Your task to perform on an android device: turn pop-ups off in chrome Image 0: 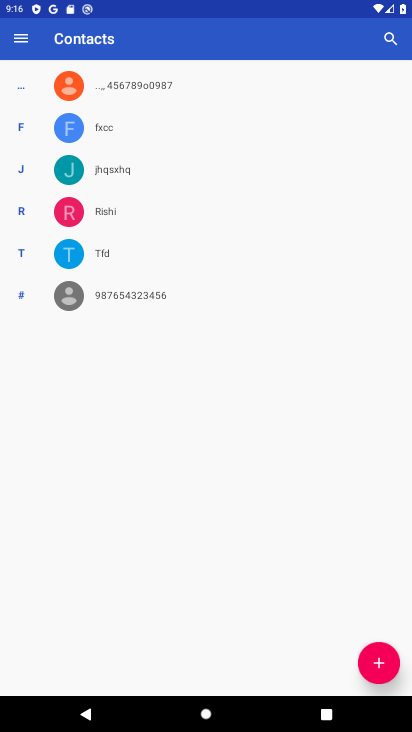
Step 0: press home button
Your task to perform on an android device: turn pop-ups off in chrome Image 1: 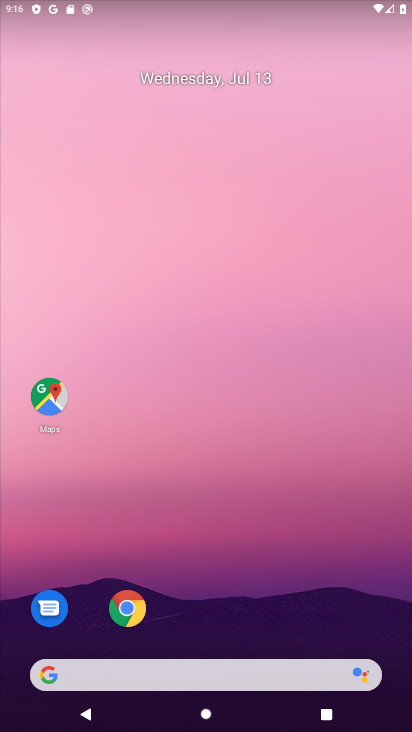
Step 1: drag from (245, 654) to (357, 113)
Your task to perform on an android device: turn pop-ups off in chrome Image 2: 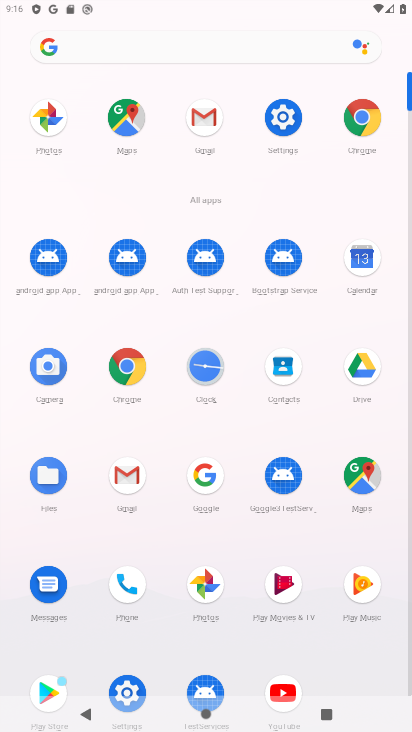
Step 2: click (135, 376)
Your task to perform on an android device: turn pop-ups off in chrome Image 3: 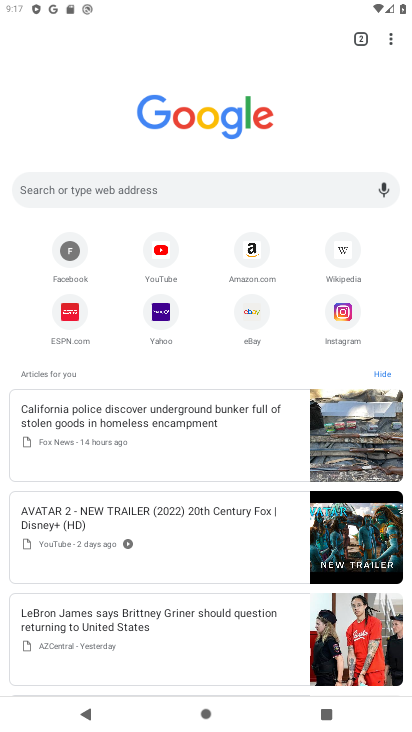
Step 3: drag from (386, 33) to (274, 335)
Your task to perform on an android device: turn pop-ups off in chrome Image 4: 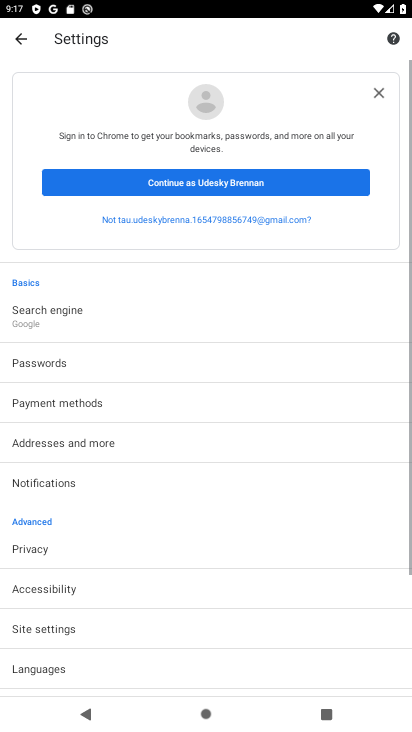
Step 4: drag from (160, 574) to (190, 231)
Your task to perform on an android device: turn pop-ups off in chrome Image 5: 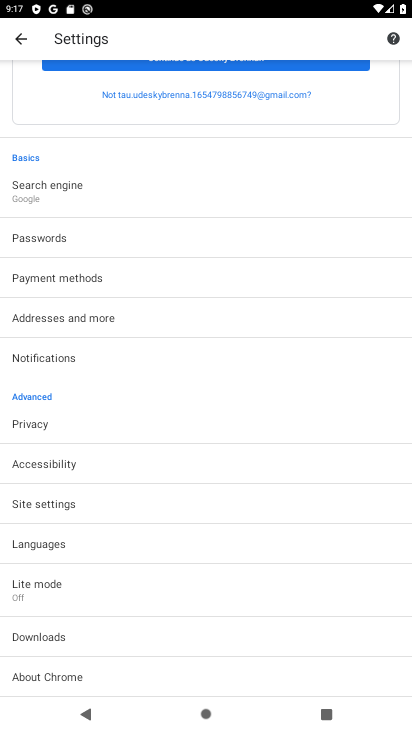
Step 5: click (102, 506)
Your task to perform on an android device: turn pop-ups off in chrome Image 6: 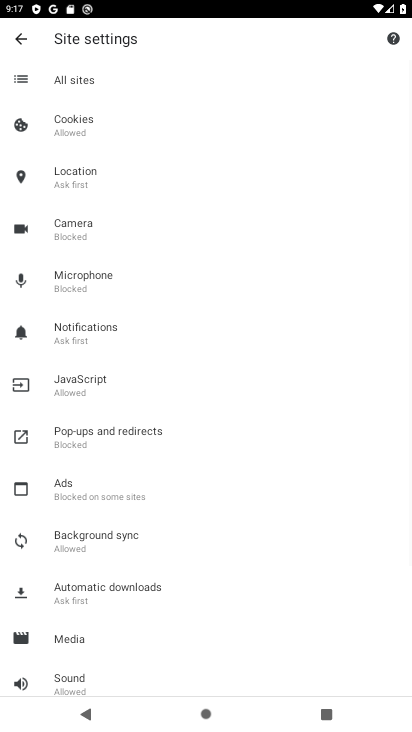
Step 6: click (123, 444)
Your task to perform on an android device: turn pop-ups off in chrome Image 7: 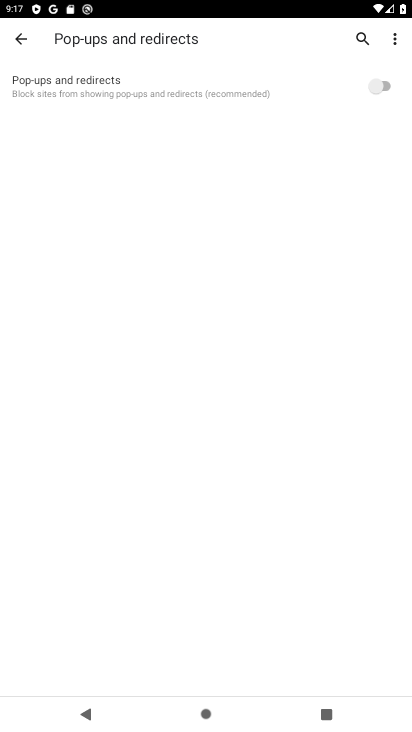
Step 7: task complete